Your task to perform on an android device: check data usage Image 0: 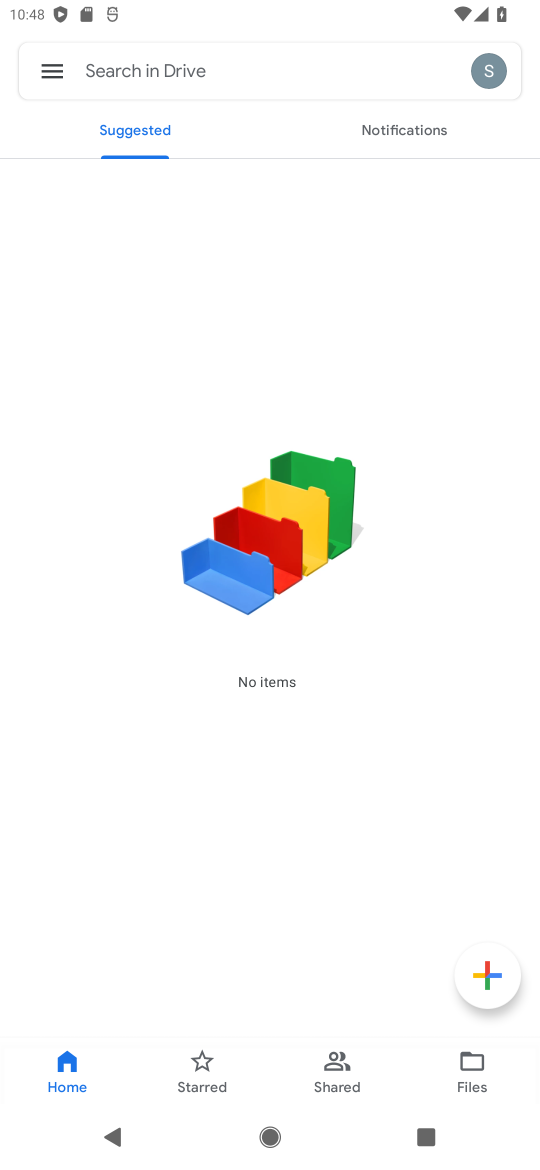
Step 0: drag from (408, 14) to (414, 727)
Your task to perform on an android device: check data usage Image 1: 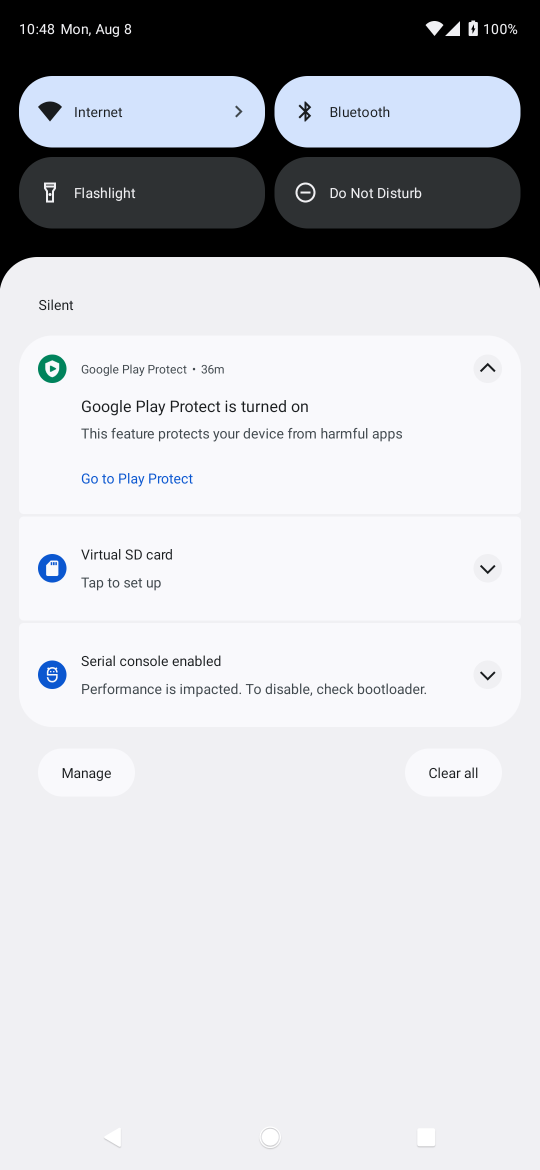
Step 1: click (206, 105)
Your task to perform on an android device: check data usage Image 2: 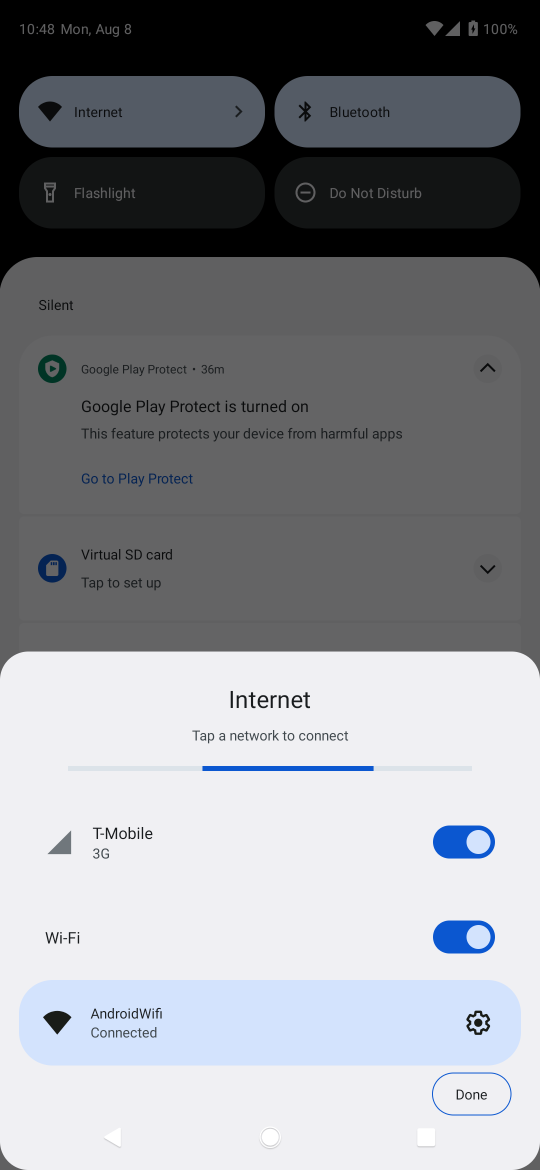
Step 2: click (471, 1013)
Your task to perform on an android device: check data usage Image 3: 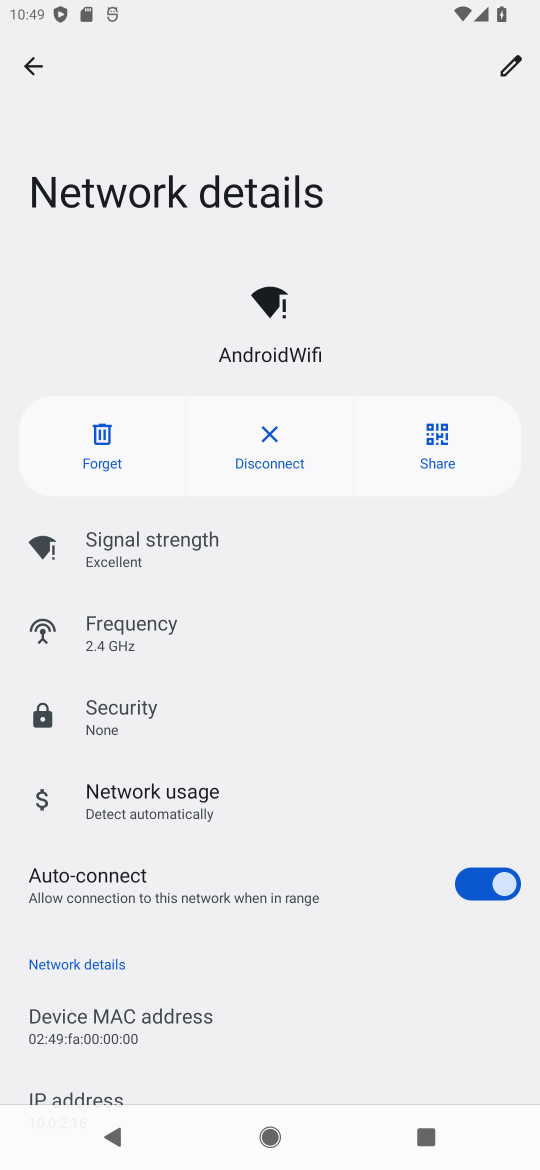
Step 3: click (231, 817)
Your task to perform on an android device: check data usage Image 4: 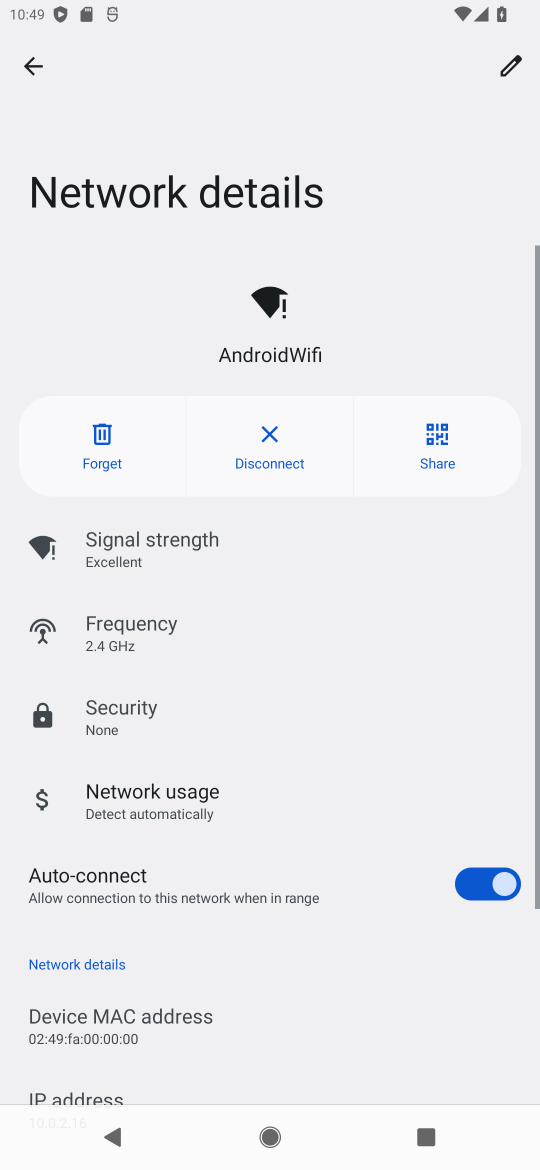
Step 4: click (226, 796)
Your task to perform on an android device: check data usage Image 5: 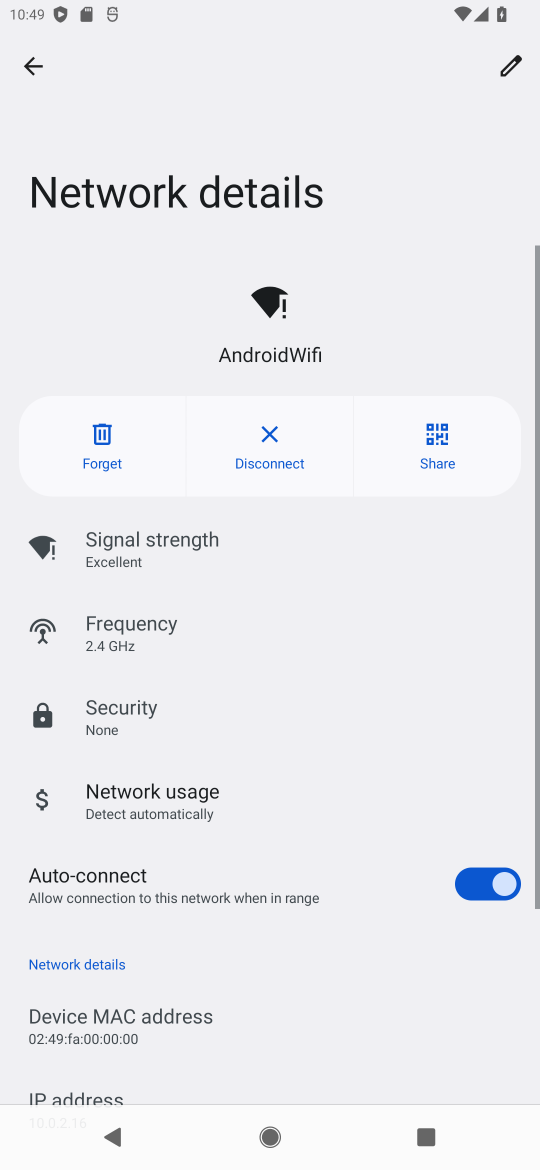
Step 5: click (226, 796)
Your task to perform on an android device: check data usage Image 6: 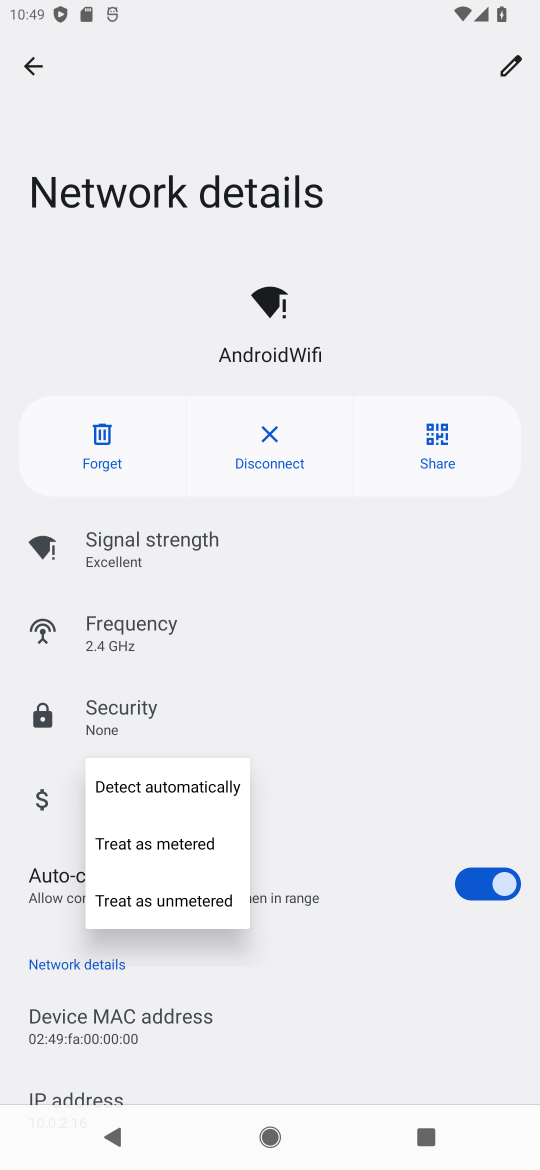
Step 6: click (353, 761)
Your task to perform on an android device: check data usage Image 7: 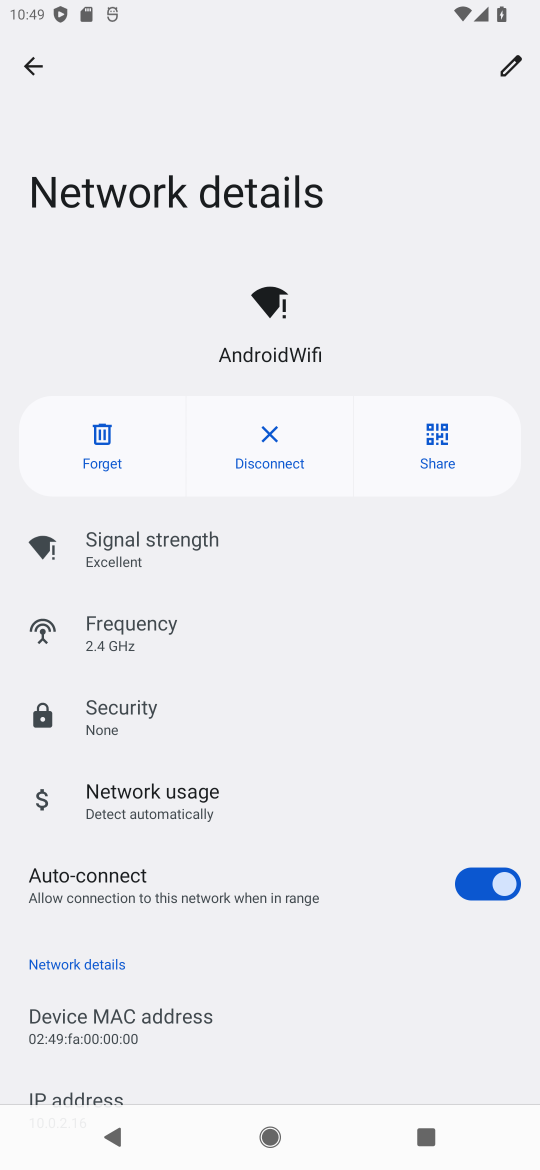
Step 7: click (265, 783)
Your task to perform on an android device: check data usage Image 8: 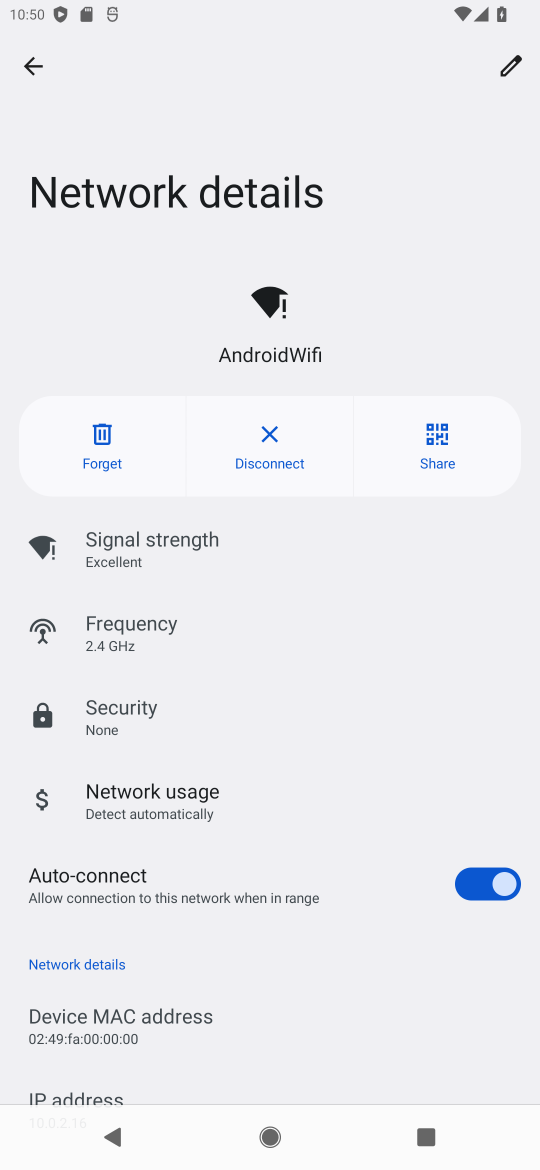
Step 8: click (275, 804)
Your task to perform on an android device: check data usage Image 9: 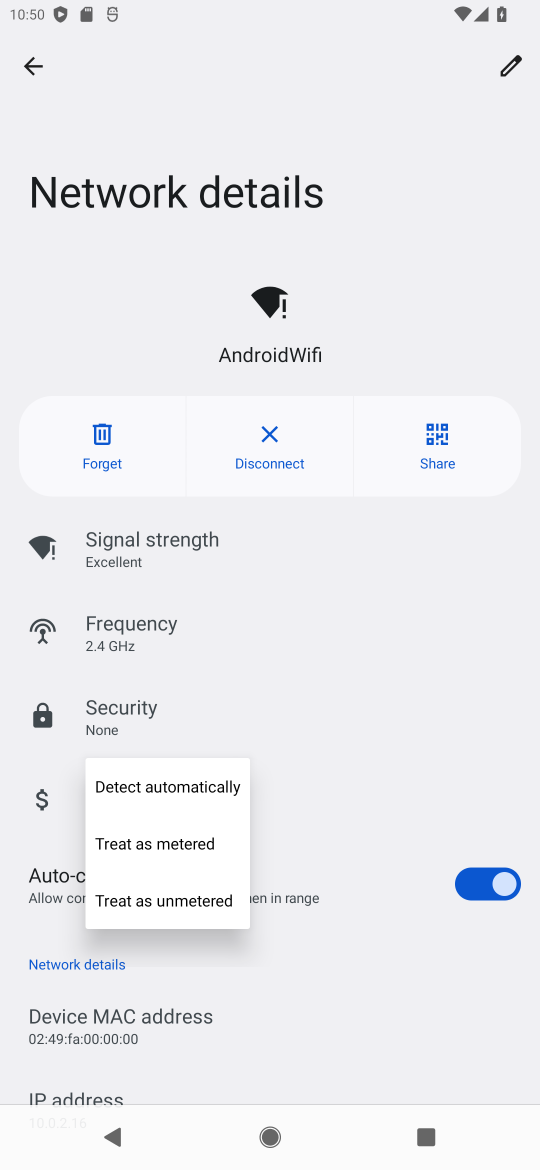
Step 9: click (177, 786)
Your task to perform on an android device: check data usage Image 10: 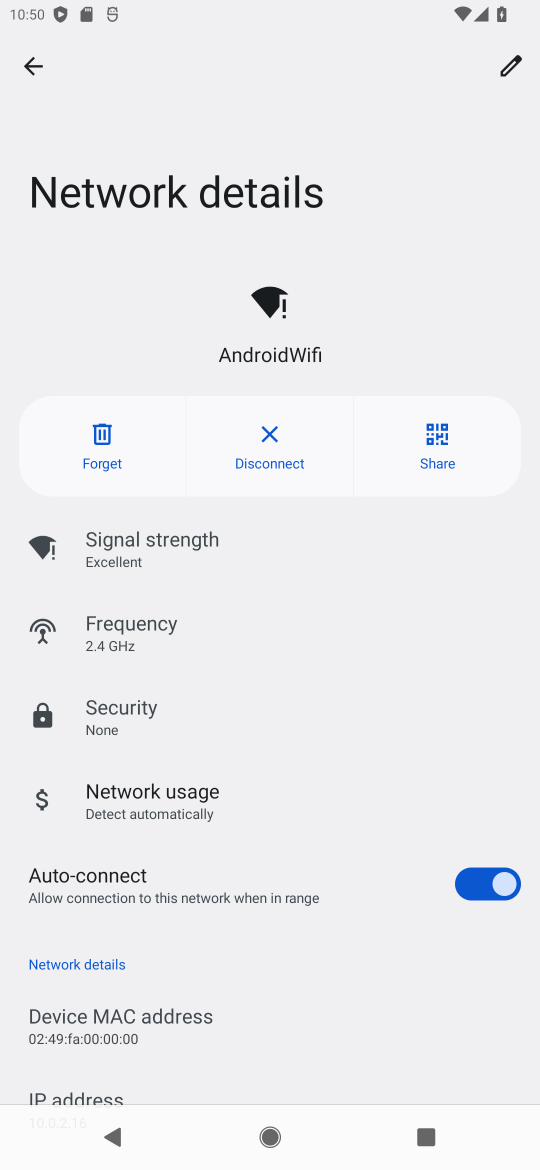
Step 10: click (177, 786)
Your task to perform on an android device: check data usage Image 11: 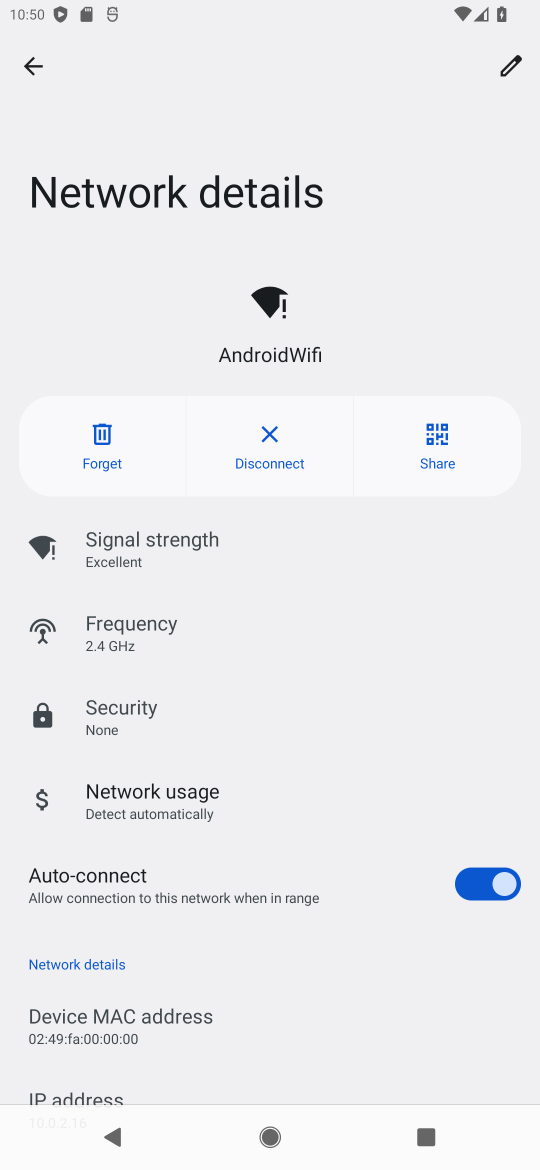
Step 11: task complete